Your task to perform on an android device: Open CNN.com Image 0: 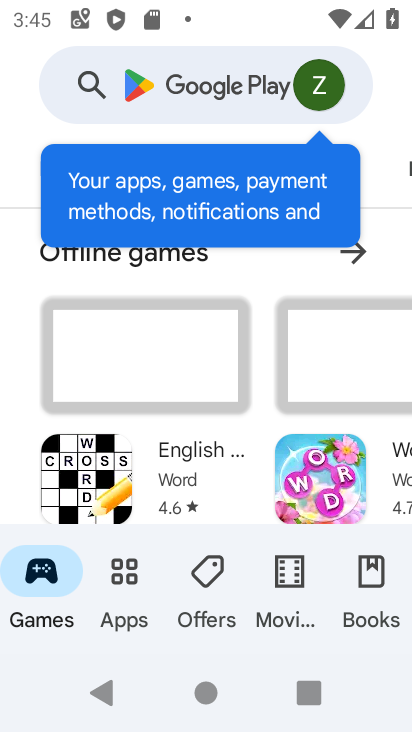
Step 0: press home button
Your task to perform on an android device: Open CNN.com Image 1: 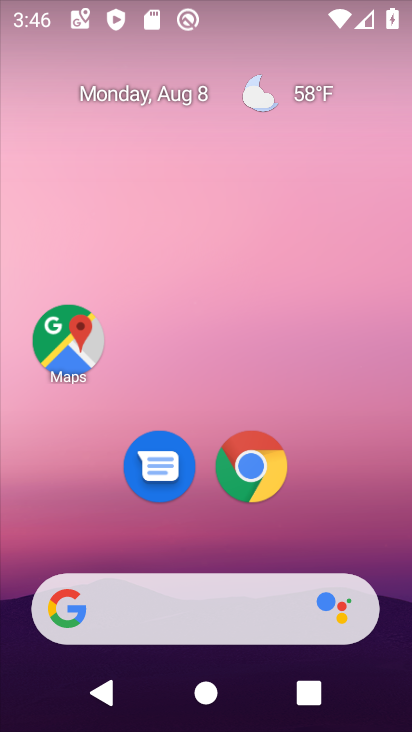
Step 1: drag from (187, 491) to (229, 202)
Your task to perform on an android device: Open CNN.com Image 2: 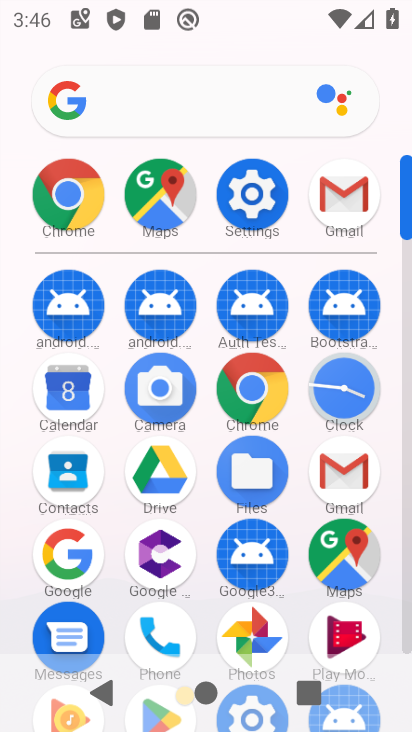
Step 2: click (57, 196)
Your task to perform on an android device: Open CNN.com Image 3: 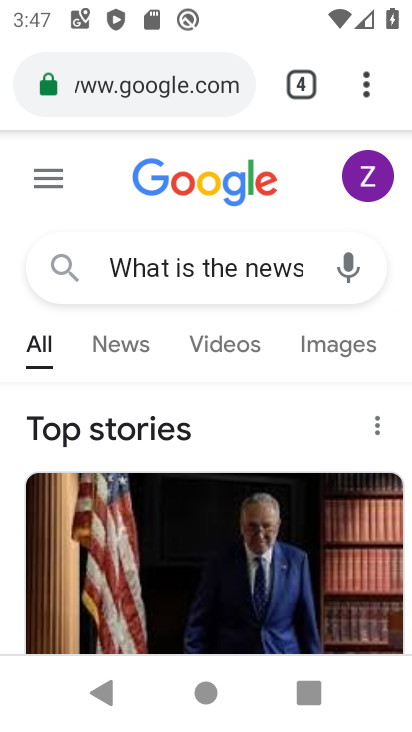
Step 3: click (375, 66)
Your task to perform on an android device: Open CNN.com Image 4: 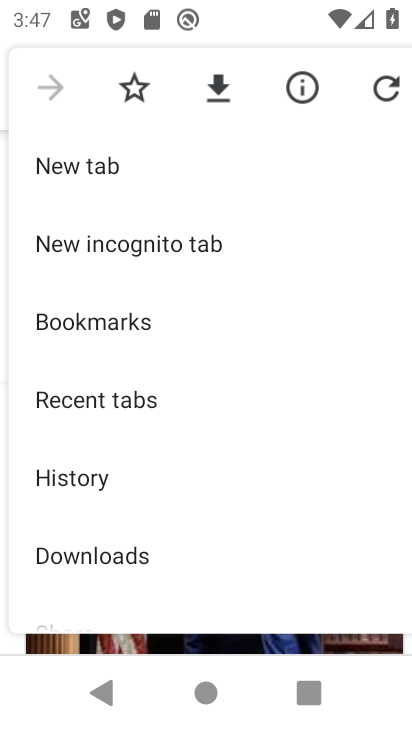
Step 4: click (92, 175)
Your task to perform on an android device: Open CNN.com Image 5: 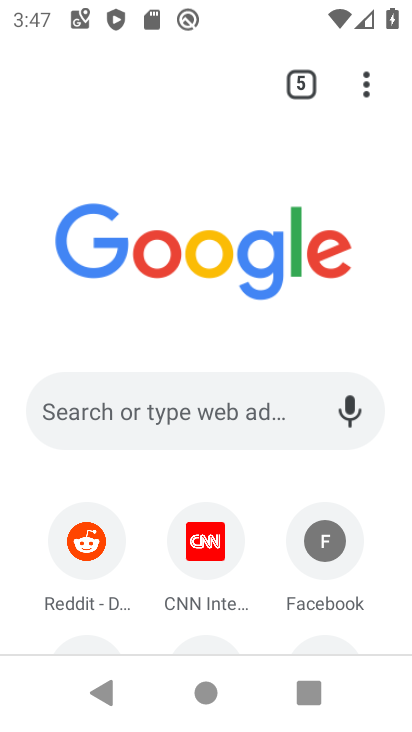
Step 5: click (202, 562)
Your task to perform on an android device: Open CNN.com Image 6: 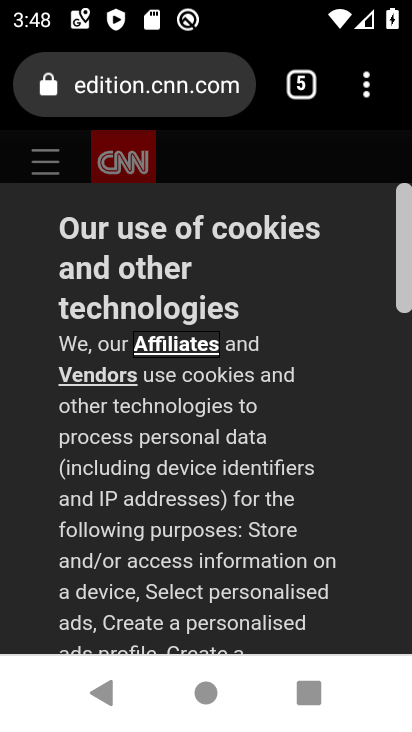
Step 6: task complete